Your task to perform on an android device: toggle javascript in the chrome app Image 0: 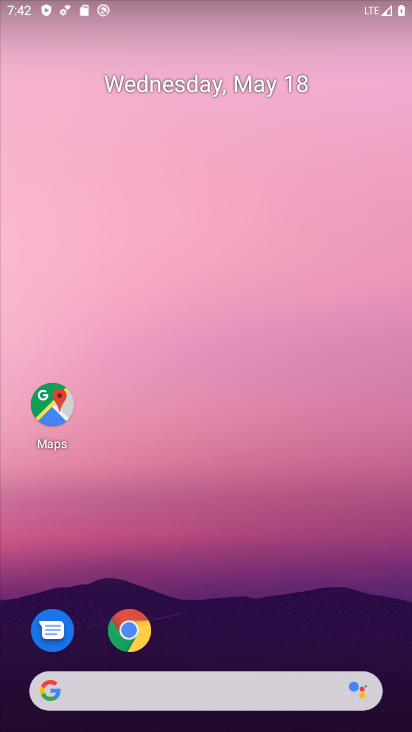
Step 0: press home button
Your task to perform on an android device: toggle javascript in the chrome app Image 1: 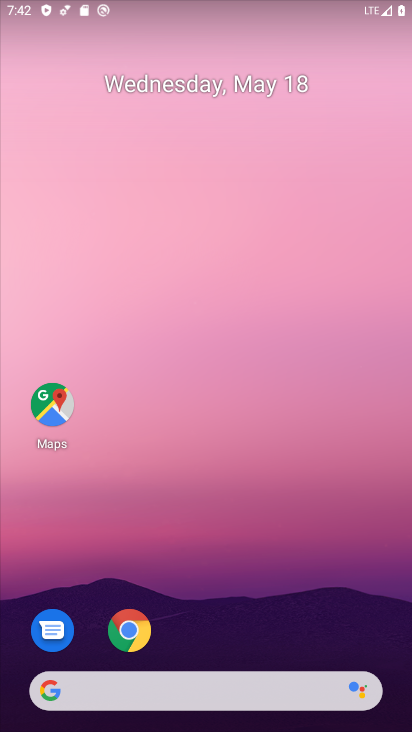
Step 1: click (133, 628)
Your task to perform on an android device: toggle javascript in the chrome app Image 2: 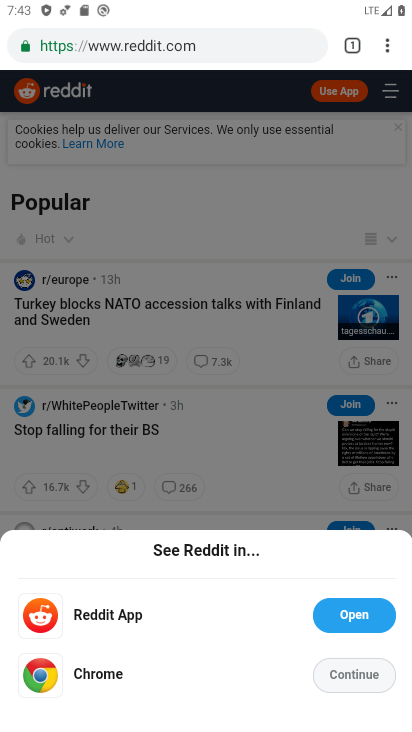
Step 2: press home button
Your task to perform on an android device: toggle javascript in the chrome app Image 3: 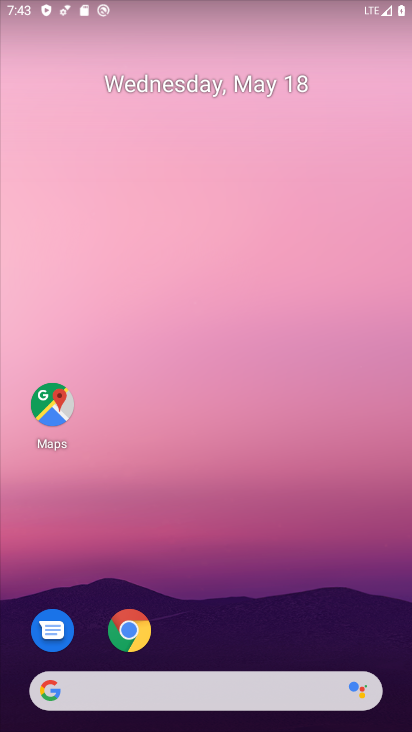
Step 3: click (131, 632)
Your task to perform on an android device: toggle javascript in the chrome app Image 4: 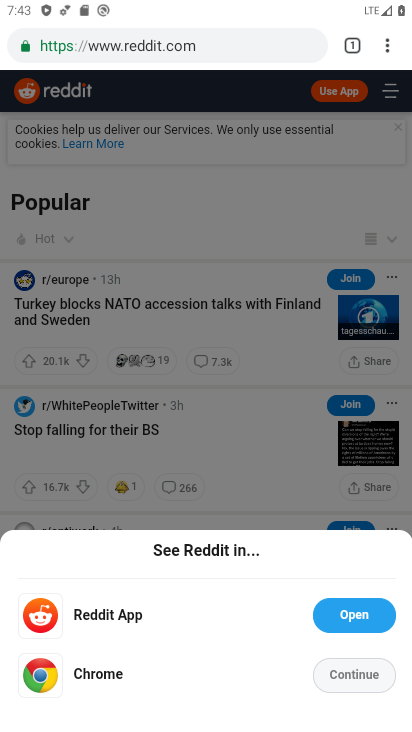
Step 4: drag from (388, 45) to (261, 557)
Your task to perform on an android device: toggle javascript in the chrome app Image 5: 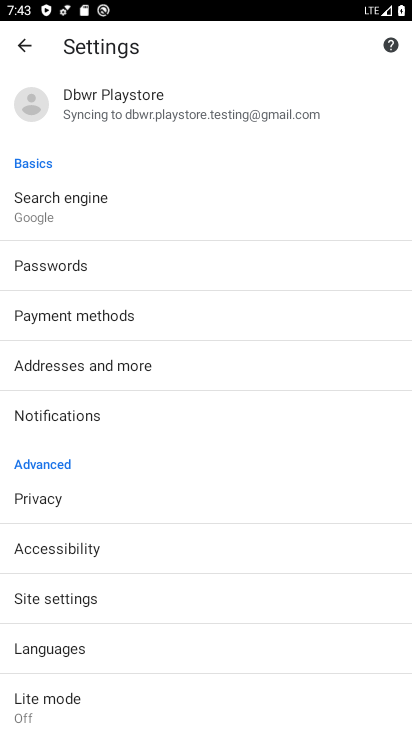
Step 5: drag from (163, 602) to (187, 561)
Your task to perform on an android device: toggle javascript in the chrome app Image 6: 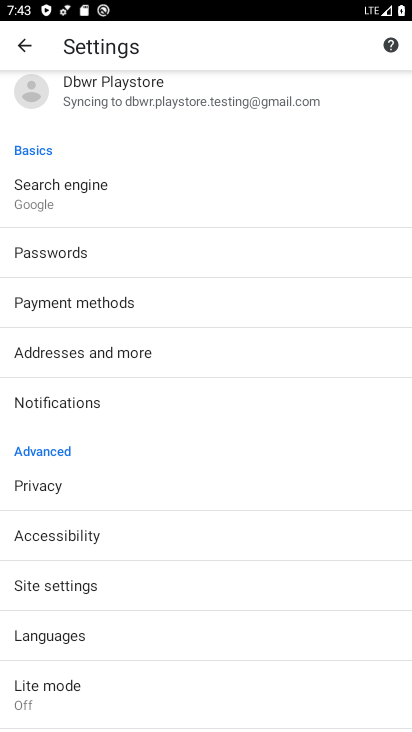
Step 6: click (80, 590)
Your task to perform on an android device: toggle javascript in the chrome app Image 7: 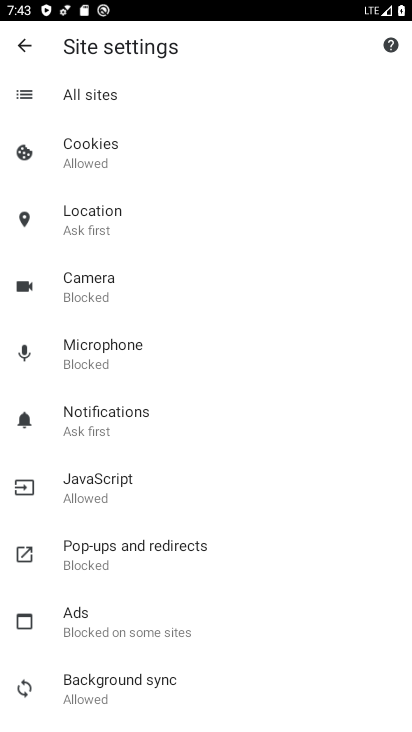
Step 7: click (110, 482)
Your task to perform on an android device: toggle javascript in the chrome app Image 8: 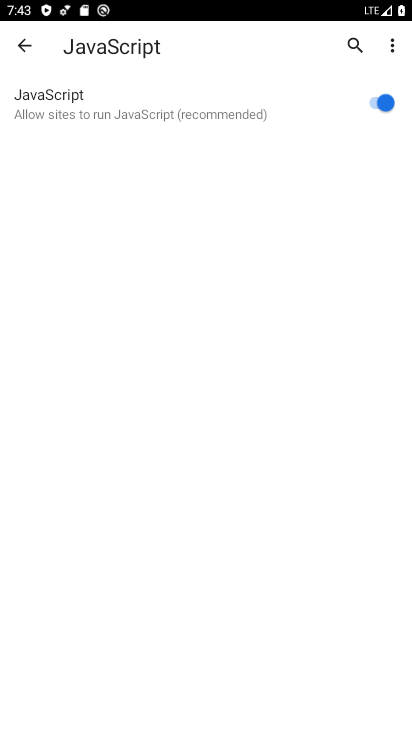
Step 8: click (372, 103)
Your task to perform on an android device: toggle javascript in the chrome app Image 9: 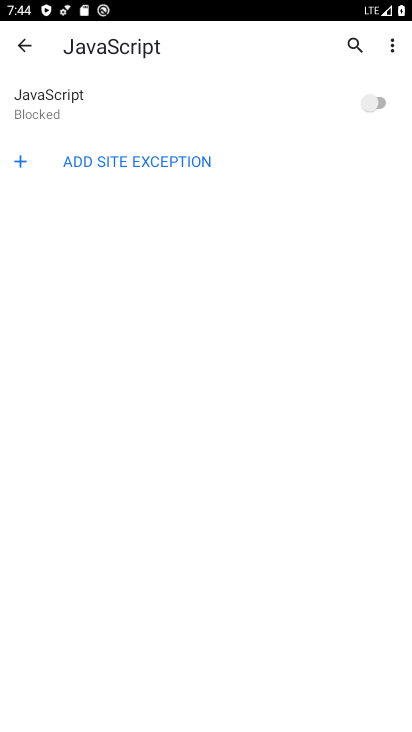
Step 9: task complete